Your task to perform on an android device: add a contact Image 0: 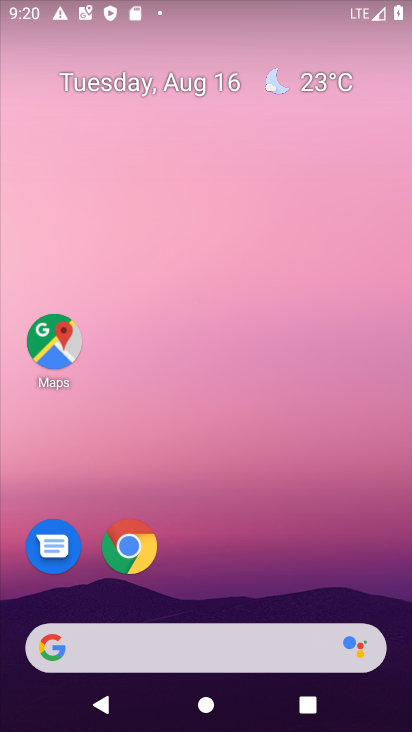
Step 0: drag from (239, 276) to (248, 0)
Your task to perform on an android device: add a contact Image 1: 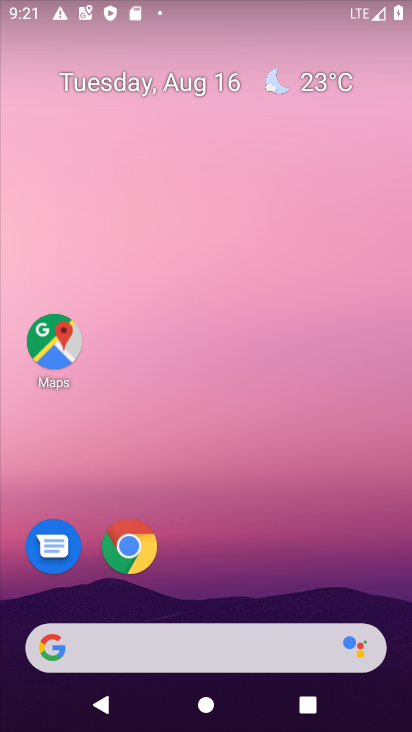
Step 1: drag from (206, 540) to (256, 1)
Your task to perform on an android device: add a contact Image 2: 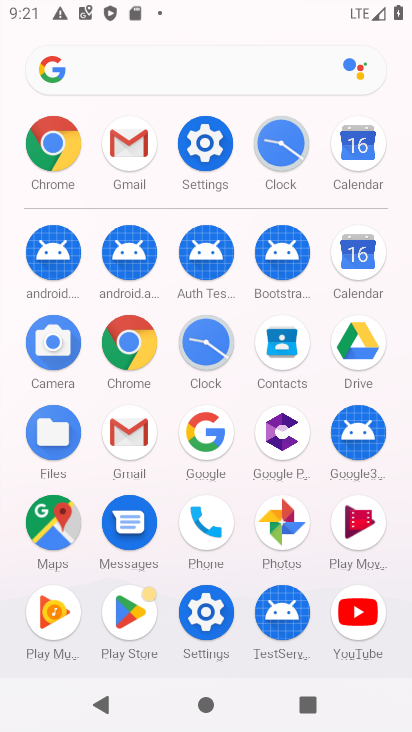
Step 2: click (275, 345)
Your task to perform on an android device: add a contact Image 3: 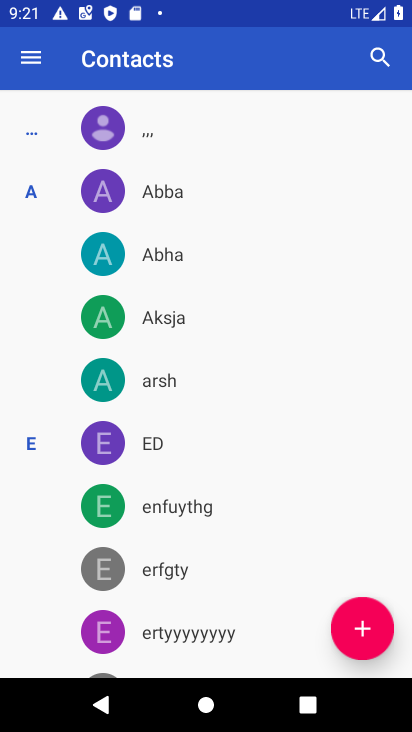
Step 3: click (363, 635)
Your task to perform on an android device: add a contact Image 4: 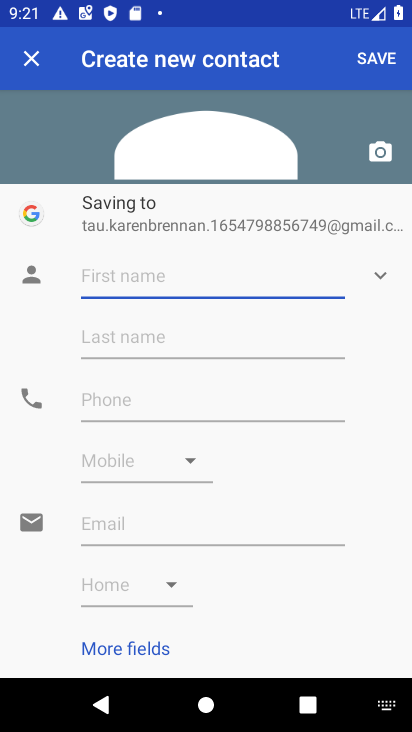
Step 4: type "Abhay"
Your task to perform on an android device: add a contact Image 5: 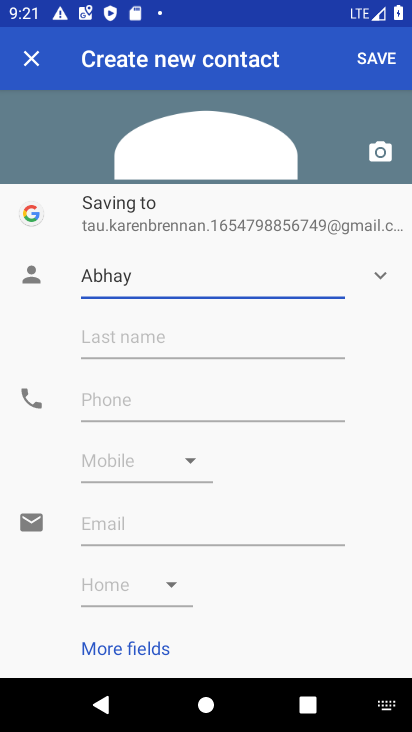
Step 5: click (208, 399)
Your task to perform on an android device: add a contact Image 6: 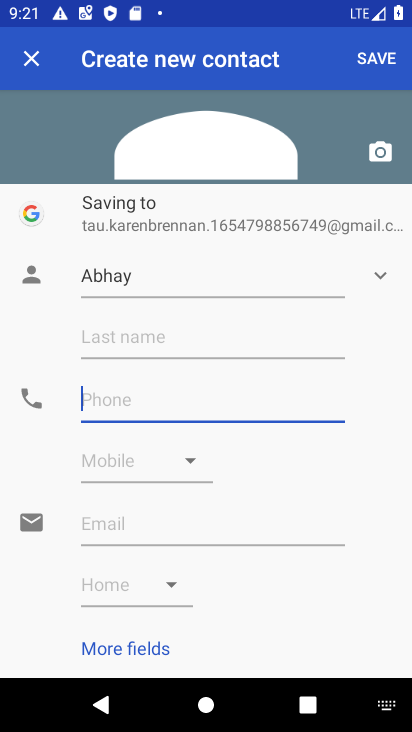
Step 6: type "+919999876543"
Your task to perform on an android device: add a contact Image 7: 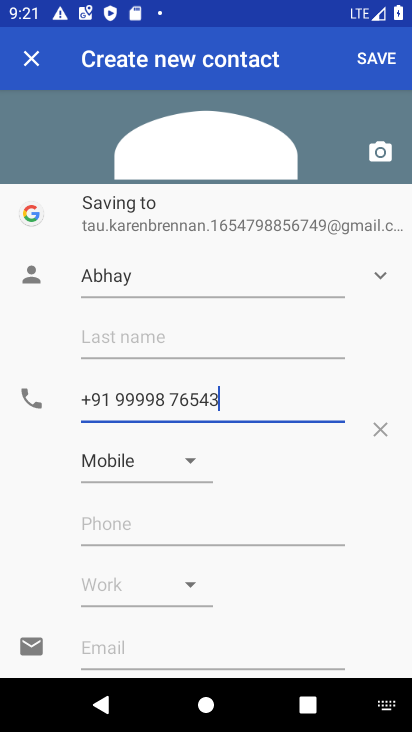
Step 7: click (376, 57)
Your task to perform on an android device: add a contact Image 8: 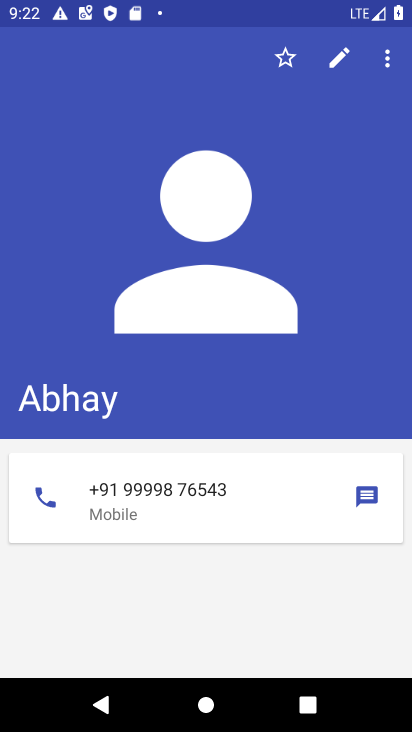
Step 8: task complete